Your task to perform on an android device: Open eBay Image 0: 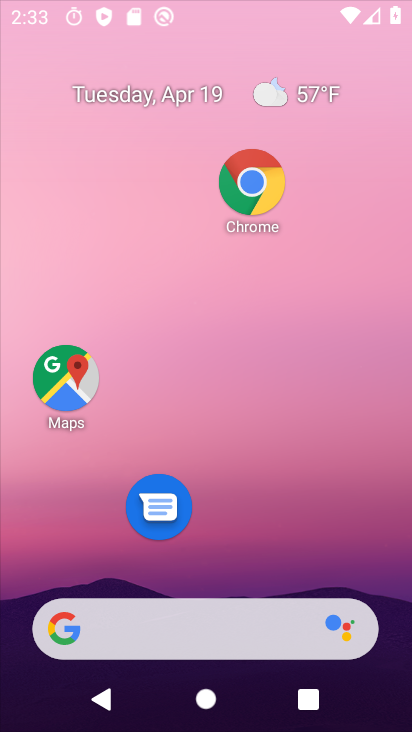
Step 0: click (271, 89)
Your task to perform on an android device: Open eBay Image 1: 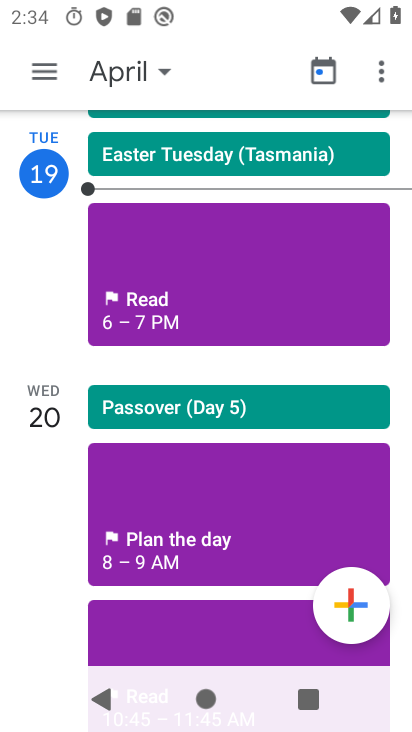
Step 1: drag from (302, 534) to (309, 176)
Your task to perform on an android device: Open eBay Image 2: 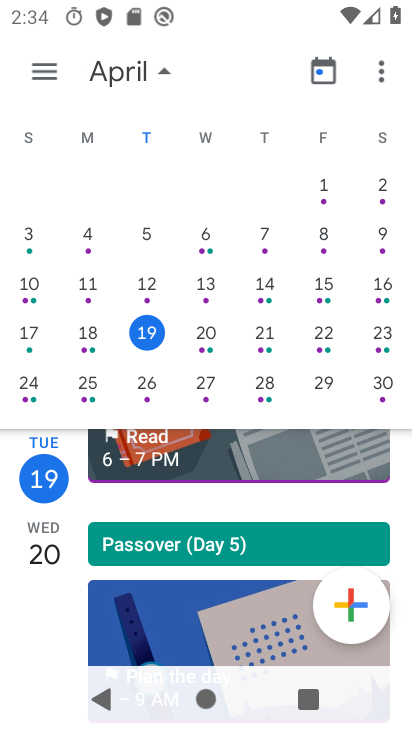
Step 2: press home button
Your task to perform on an android device: Open eBay Image 3: 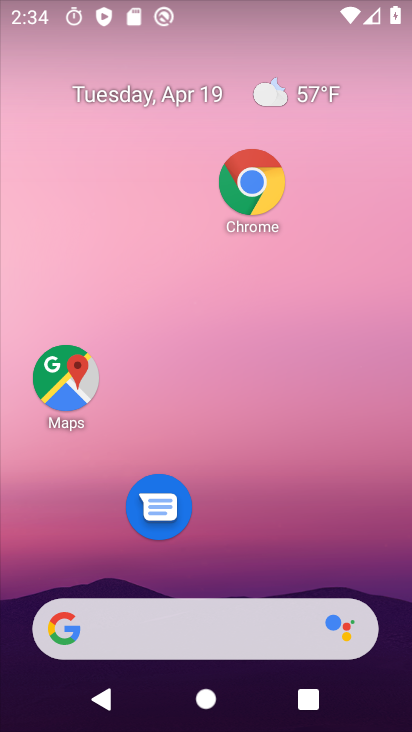
Step 3: drag from (230, 601) to (259, 147)
Your task to perform on an android device: Open eBay Image 4: 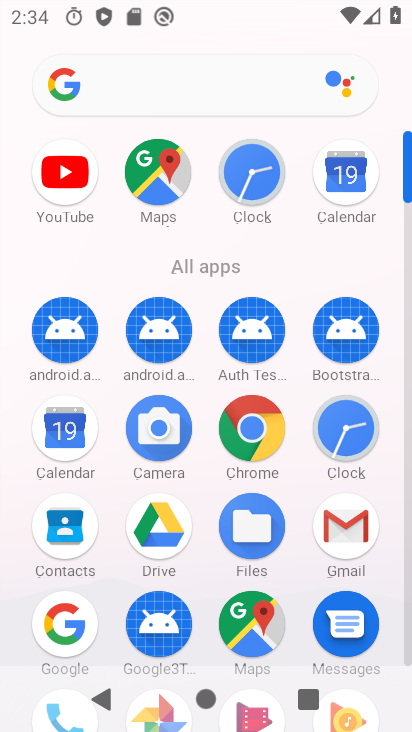
Step 4: click (263, 434)
Your task to perform on an android device: Open eBay Image 5: 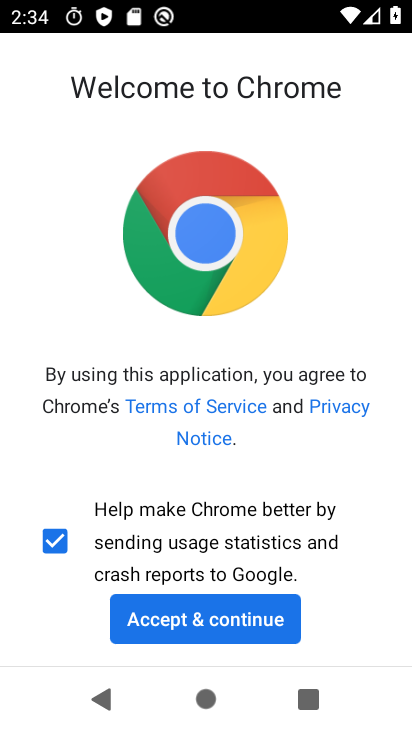
Step 5: click (227, 617)
Your task to perform on an android device: Open eBay Image 6: 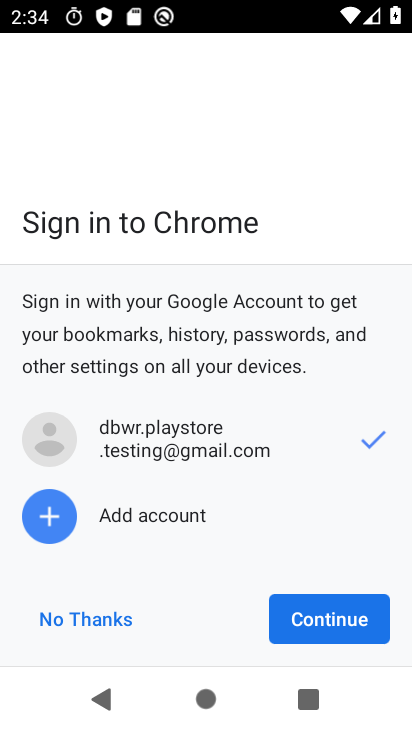
Step 6: click (291, 610)
Your task to perform on an android device: Open eBay Image 7: 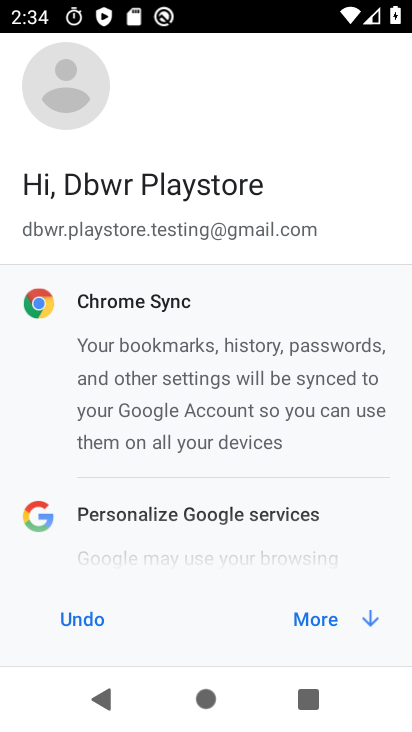
Step 7: click (331, 610)
Your task to perform on an android device: Open eBay Image 8: 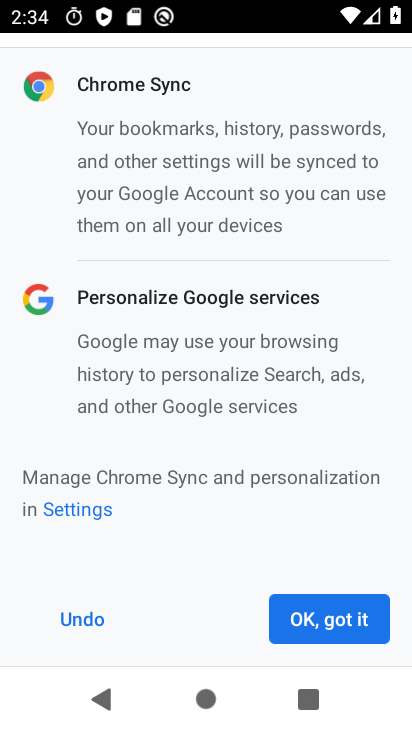
Step 8: click (331, 613)
Your task to perform on an android device: Open eBay Image 9: 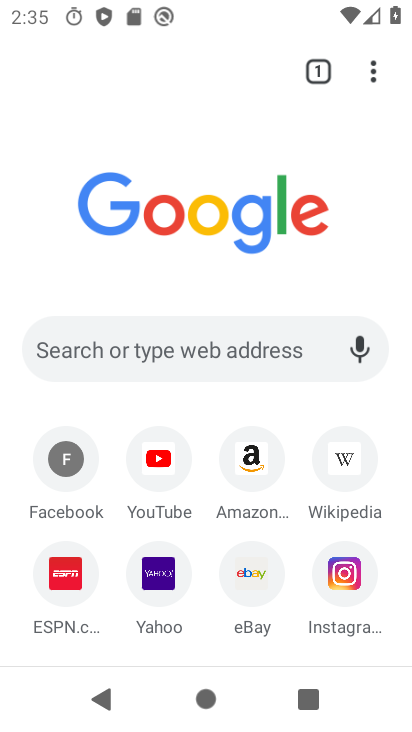
Step 9: click (249, 574)
Your task to perform on an android device: Open eBay Image 10: 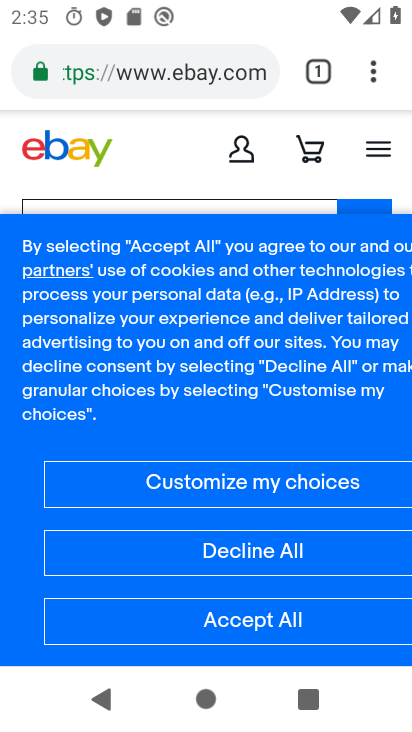
Step 10: task complete